Your task to perform on an android device: Go to Wikipedia Image 0: 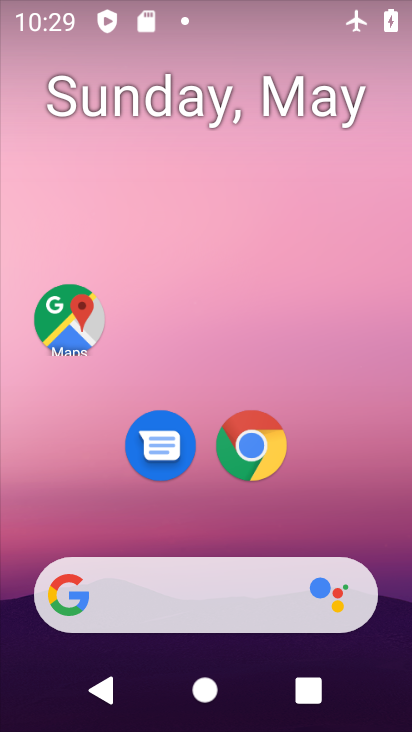
Step 0: click (252, 443)
Your task to perform on an android device: Go to Wikipedia Image 1: 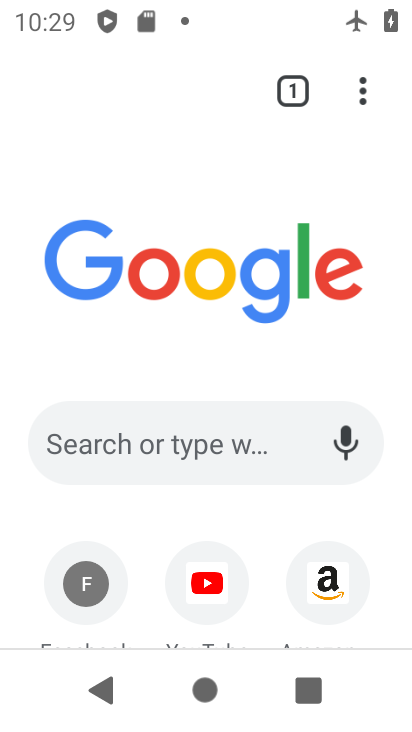
Step 1: click (155, 429)
Your task to perform on an android device: Go to Wikipedia Image 2: 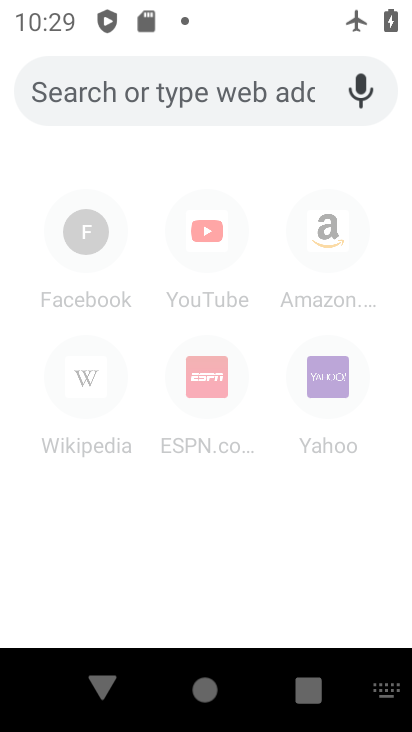
Step 2: type "wikipedia"
Your task to perform on an android device: Go to Wikipedia Image 3: 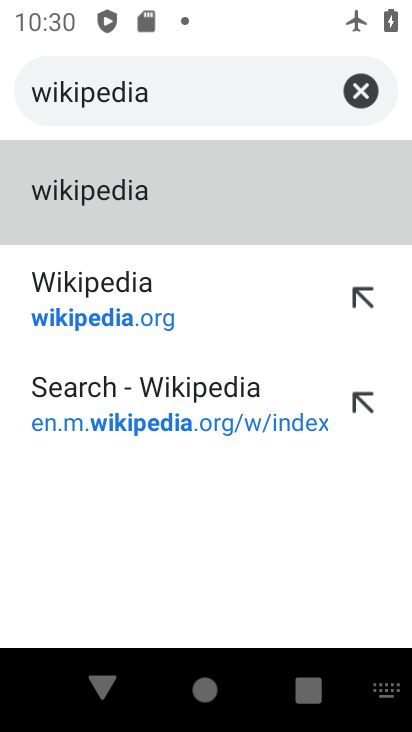
Step 3: click (129, 220)
Your task to perform on an android device: Go to Wikipedia Image 4: 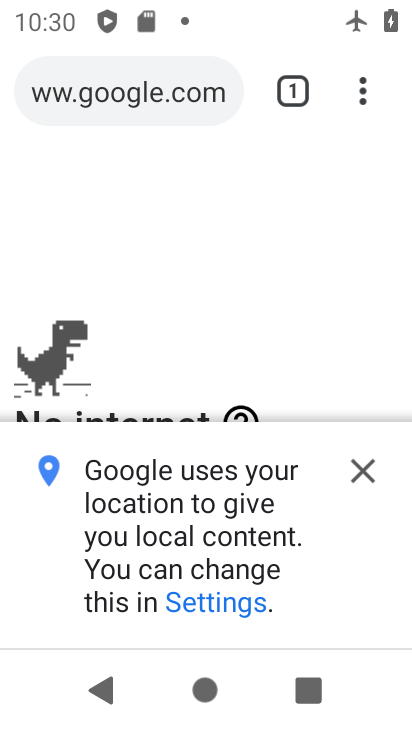
Step 4: task complete